Your task to perform on an android device: Go to battery settings Image 0: 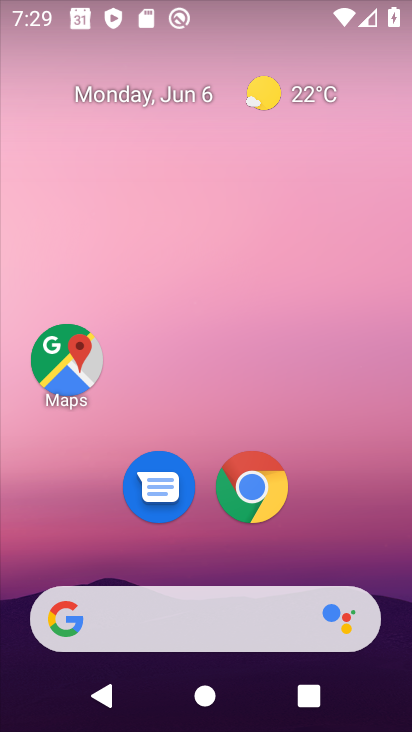
Step 0: drag from (389, 609) to (300, 84)
Your task to perform on an android device: Go to battery settings Image 1: 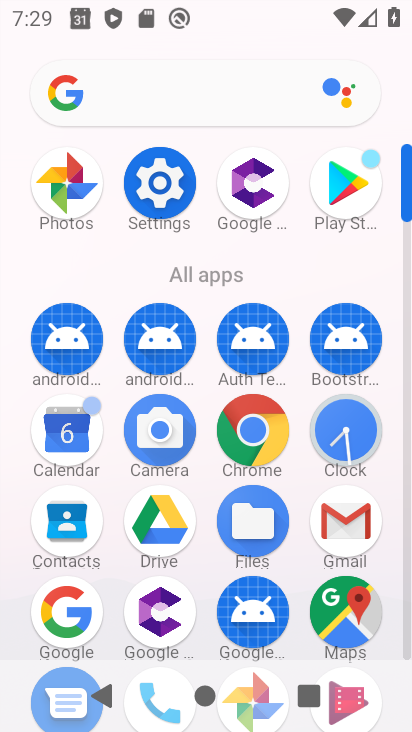
Step 1: click (170, 187)
Your task to perform on an android device: Go to battery settings Image 2: 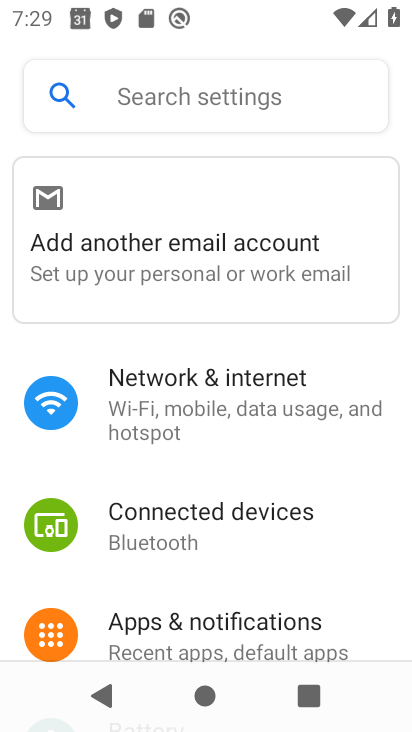
Step 2: drag from (196, 586) to (220, 230)
Your task to perform on an android device: Go to battery settings Image 3: 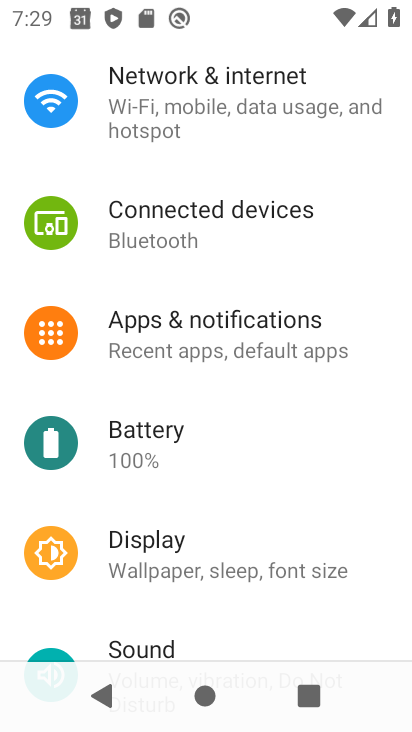
Step 3: click (98, 430)
Your task to perform on an android device: Go to battery settings Image 4: 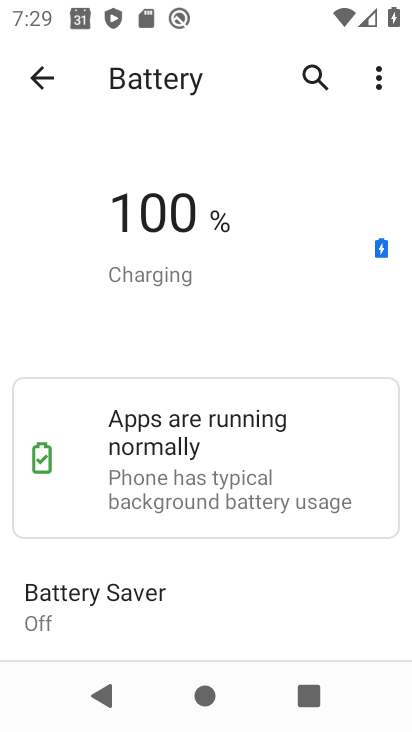
Step 4: task complete